Your task to perform on an android device: Open calendar and show me the third week of next month Image 0: 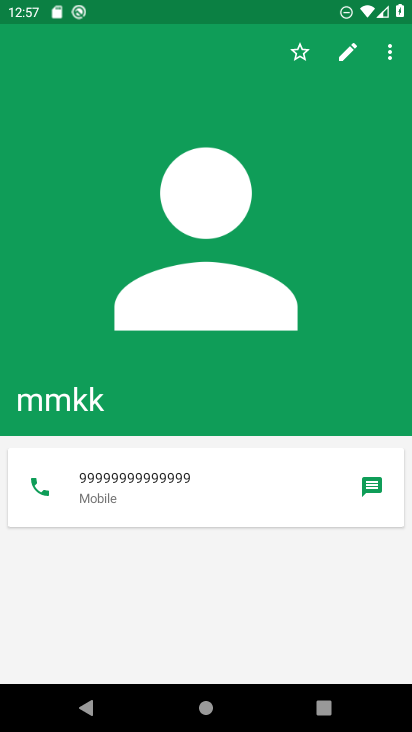
Step 0: press home button
Your task to perform on an android device: Open calendar and show me the third week of next month Image 1: 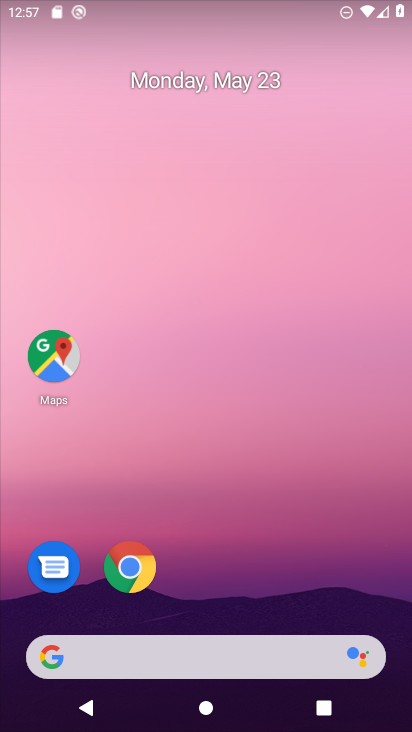
Step 1: click (262, 74)
Your task to perform on an android device: Open calendar and show me the third week of next month Image 2: 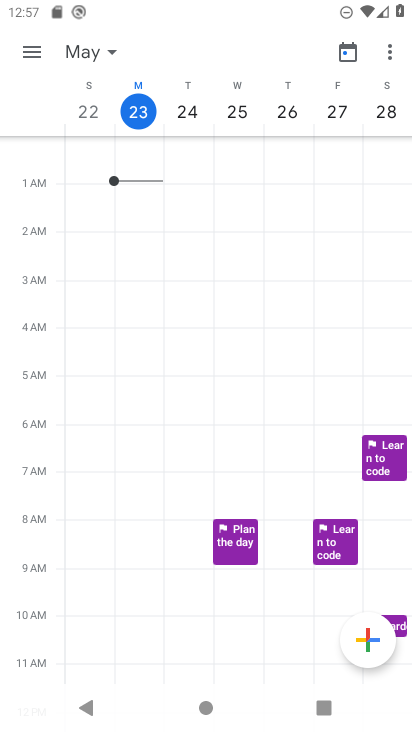
Step 2: click (73, 56)
Your task to perform on an android device: Open calendar and show me the third week of next month Image 3: 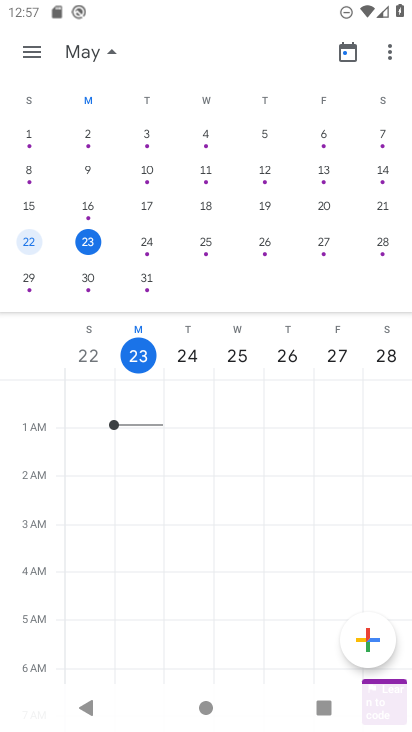
Step 3: click (112, 54)
Your task to perform on an android device: Open calendar and show me the third week of next month Image 4: 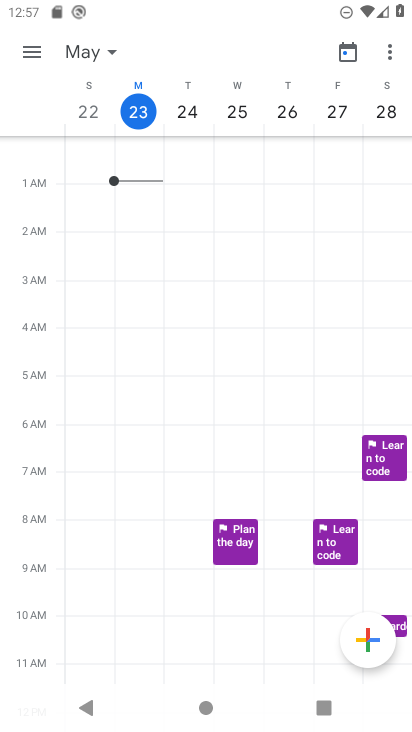
Step 4: click (85, 63)
Your task to perform on an android device: Open calendar and show me the third week of next month Image 5: 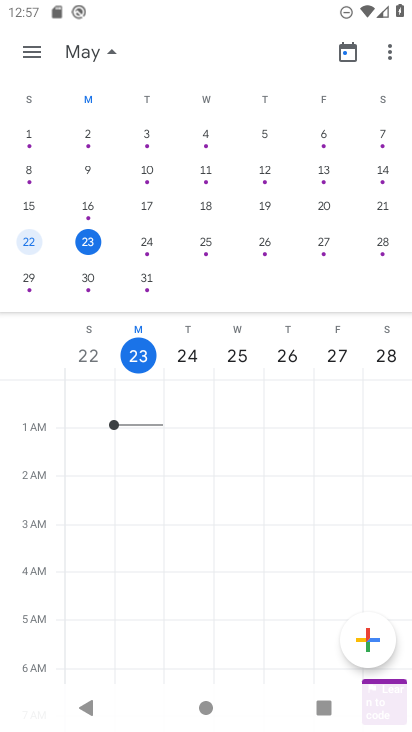
Step 5: drag from (350, 279) to (28, 286)
Your task to perform on an android device: Open calendar and show me the third week of next month Image 6: 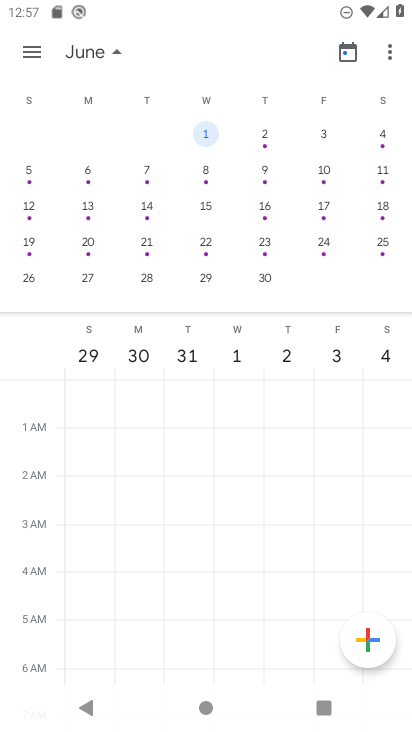
Step 6: click (268, 210)
Your task to perform on an android device: Open calendar and show me the third week of next month Image 7: 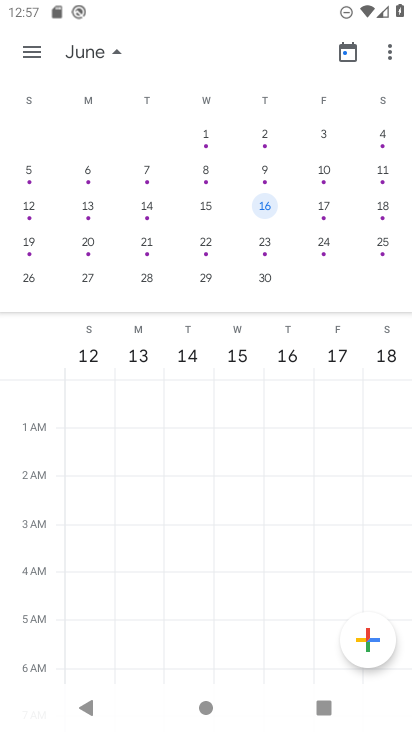
Step 7: task complete